Your task to perform on an android device: Open ESPN.com Image 0: 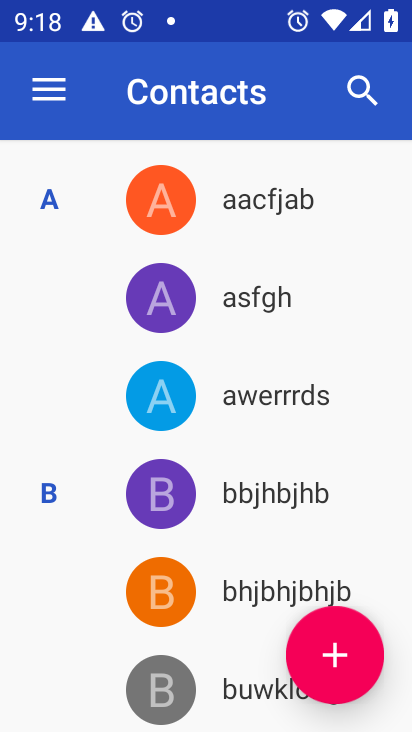
Step 0: press home button
Your task to perform on an android device: Open ESPN.com Image 1: 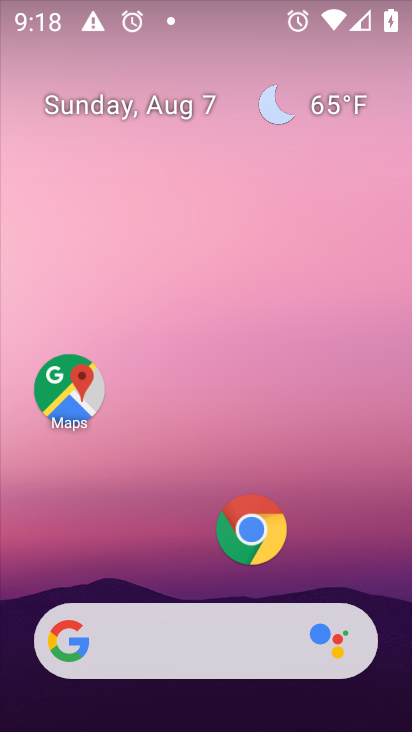
Step 1: click (249, 542)
Your task to perform on an android device: Open ESPN.com Image 2: 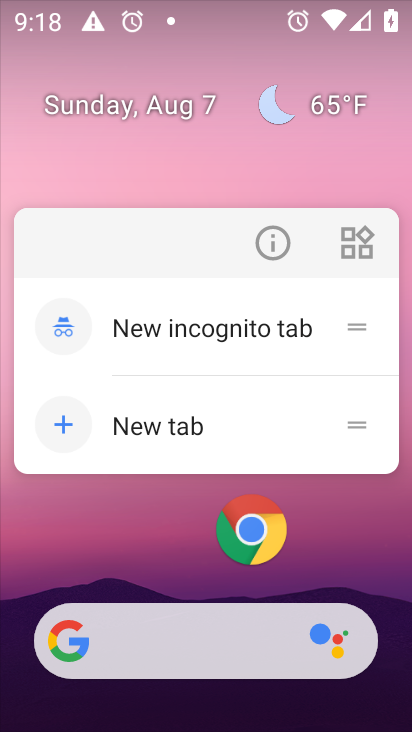
Step 2: click (260, 522)
Your task to perform on an android device: Open ESPN.com Image 3: 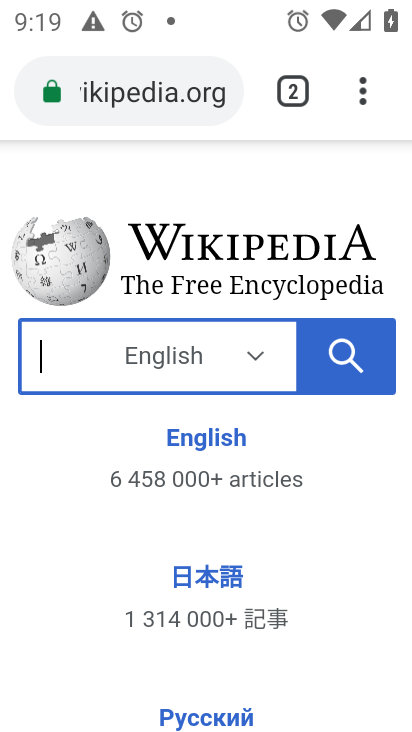
Step 3: click (148, 79)
Your task to perform on an android device: Open ESPN.com Image 4: 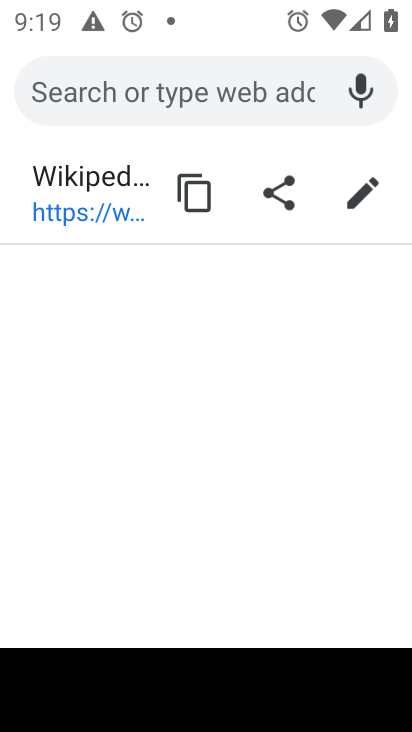
Step 4: type "ESPN.com"
Your task to perform on an android device: Open ESPN.com Image 5: 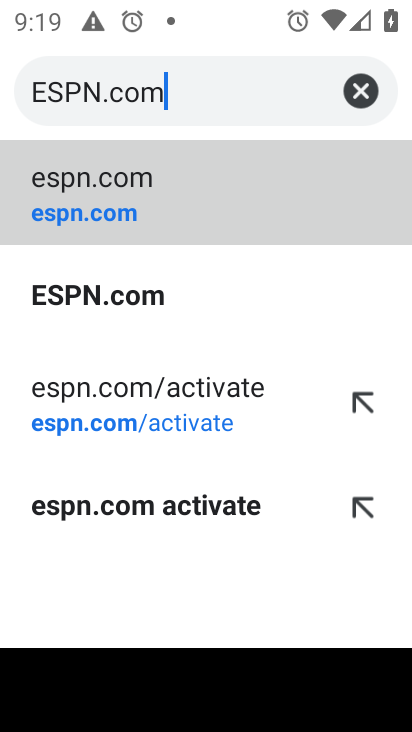
Step 5: click (92, 204)
Your task to perform on an android device: Open ESPN.com Image 6: 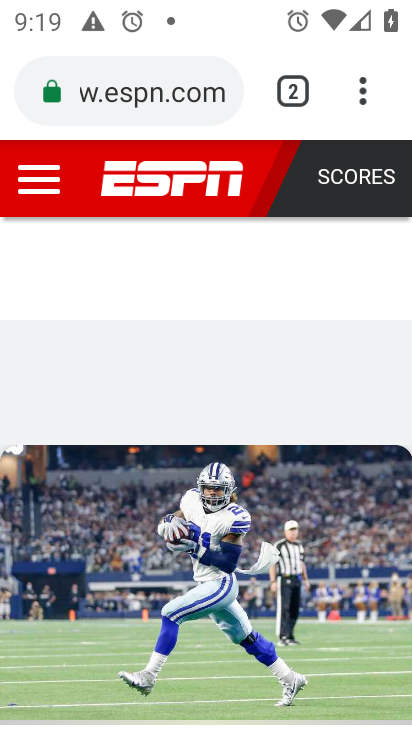
Step 6: task complete